Your task to perform on an android device: turn off location history Image 0: 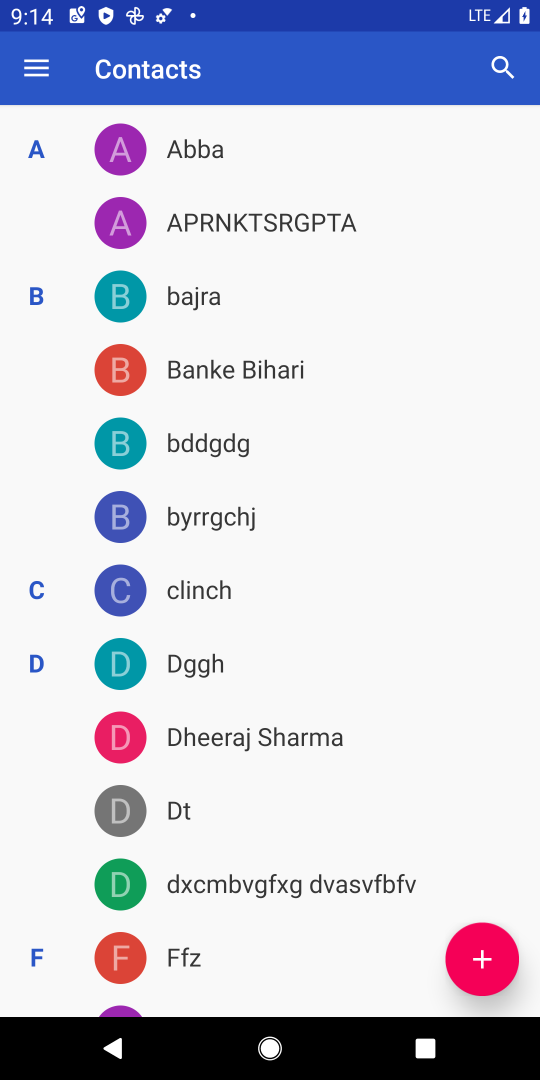
Step 0: press home button
Your task to perform on an android device: turn off location history Image 1: 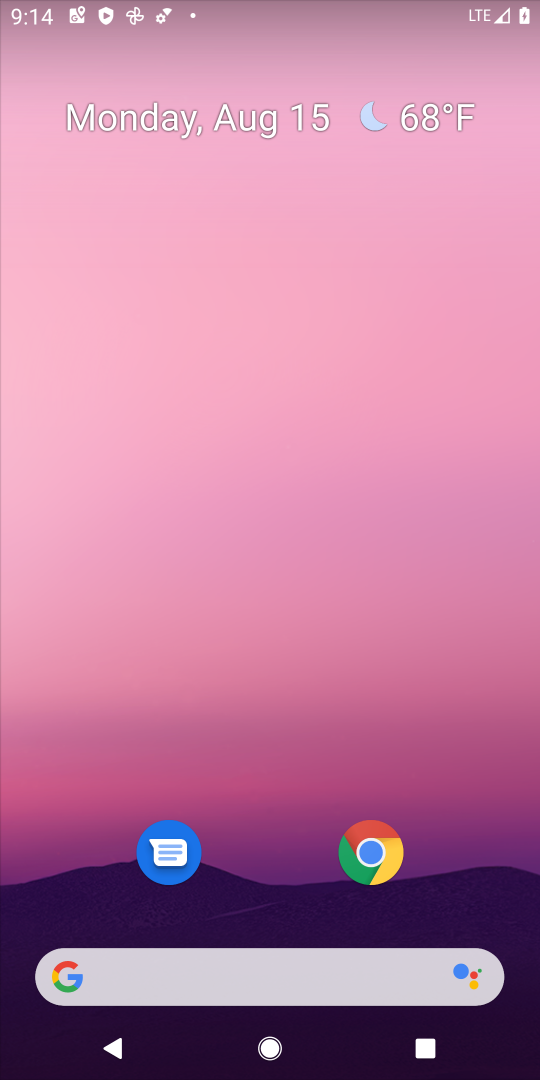
Step 1: drag from (215, 975) to (155, 98)
Your task to perform on an android device: turn off location history Image 2: 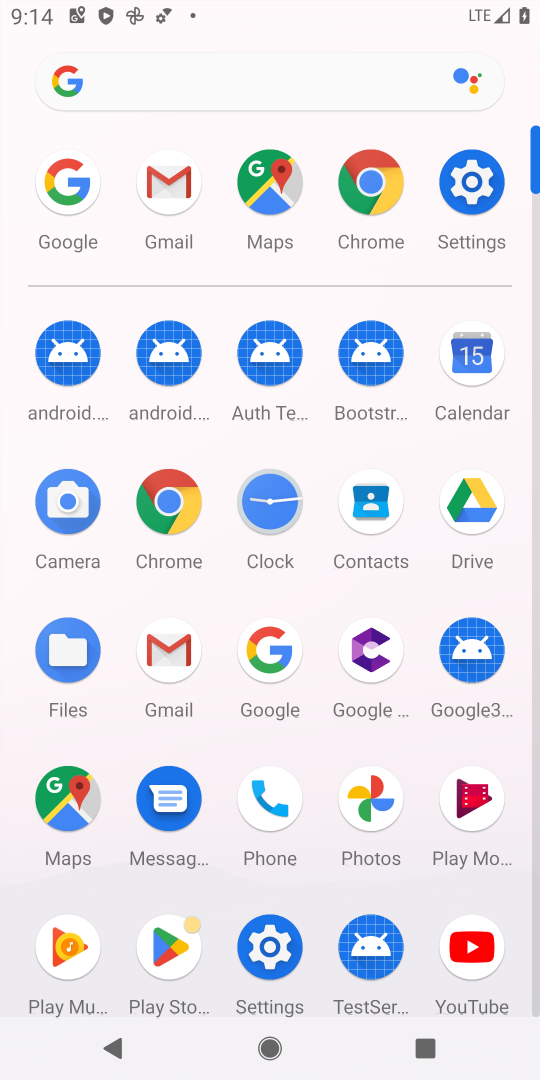
Step 2: click (470, 184)
Your task to perform on an android device: turn off location history Image 3: 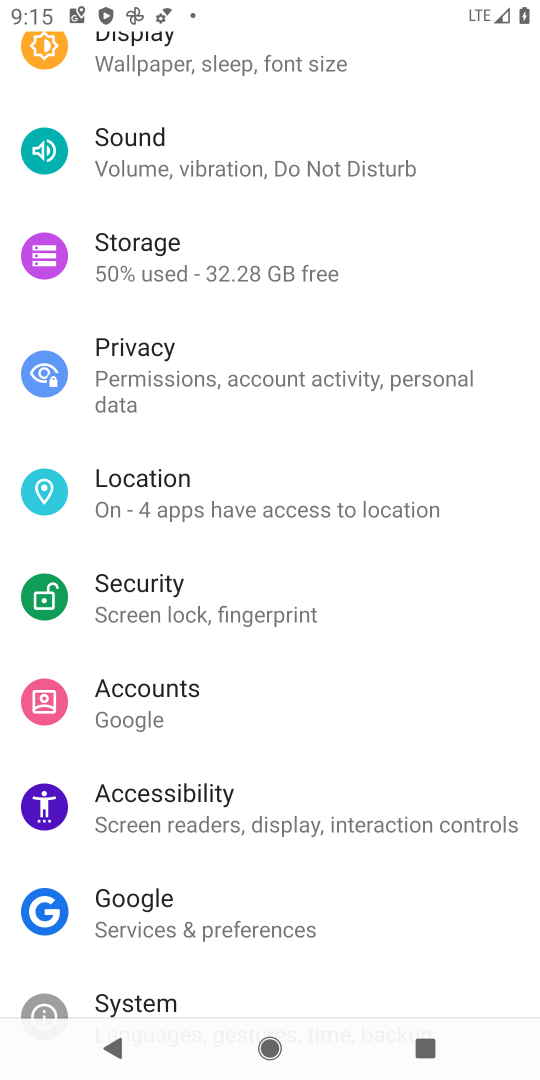
Step 3: click (217, 513)
Your task to perform on an android device: turn off location history Image 4: 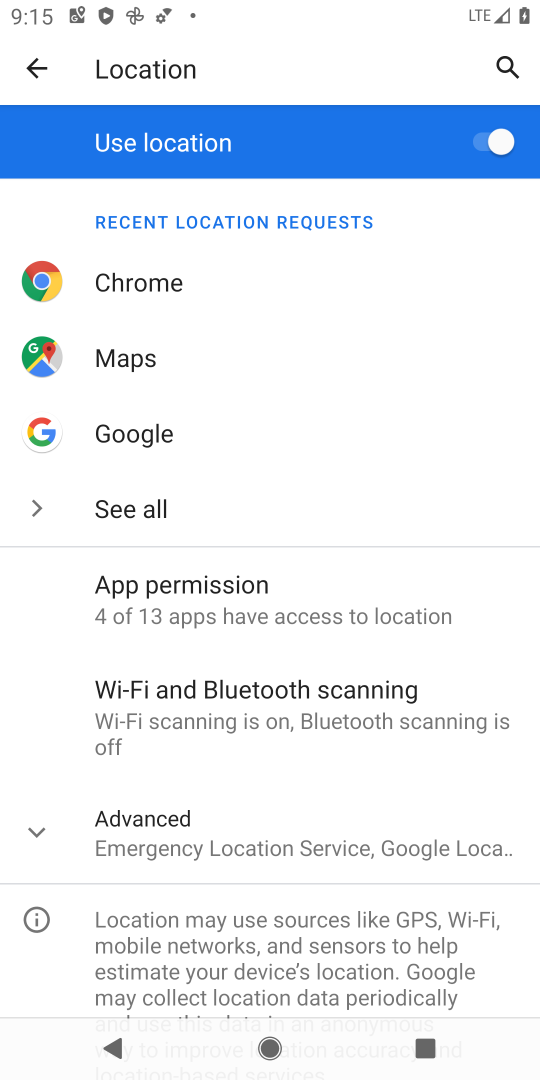
Step 4: click (197, 846)
Your task to perform on an android device: turn off location history Image 5: 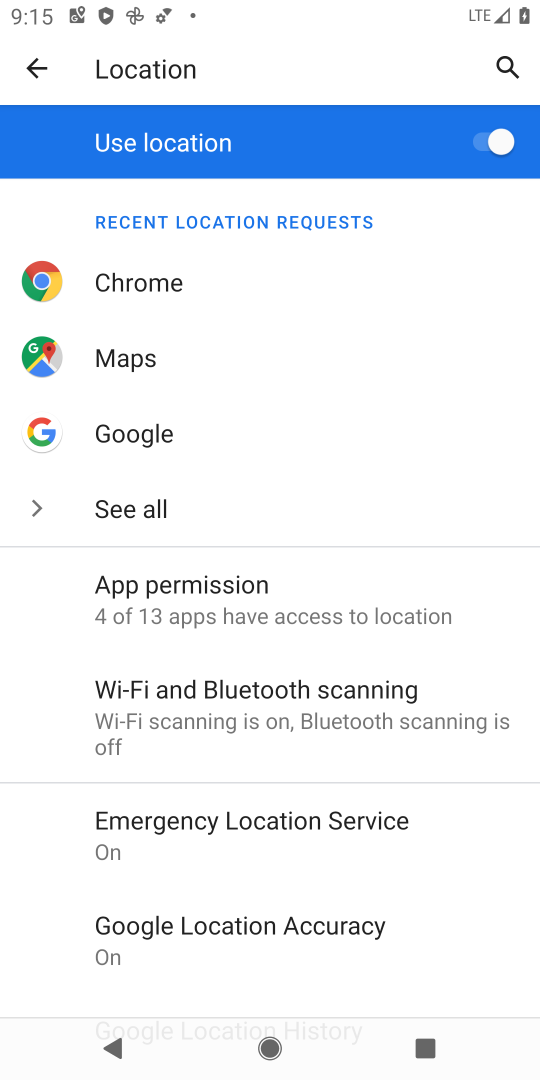
Step 5: drag from (225, 848) to (310, 686)
Your task to perform on an android device: turn off location history Image 6: 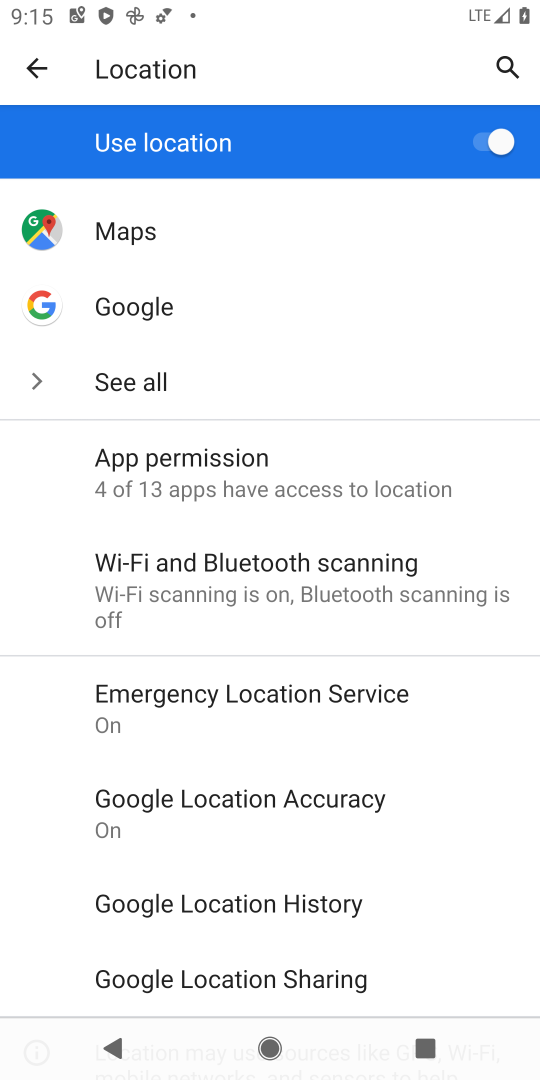
Step 6: drag from (236, 836) to (317, 686)
Your task to perform on an android device: turn off location history Image 7: 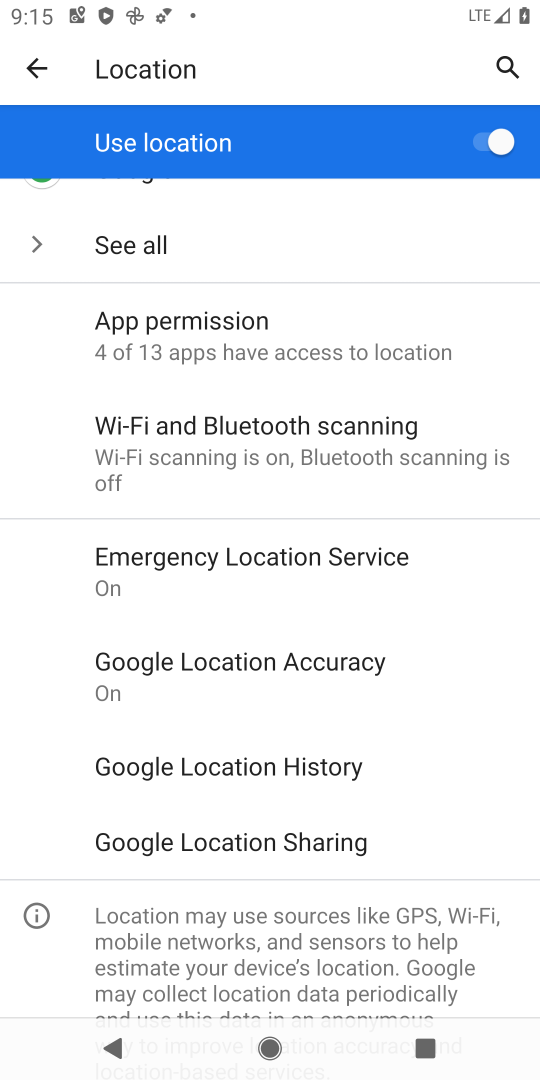
Step 7: click (314, 772)
Your task to perform on an android device: turn off location history Image 8: 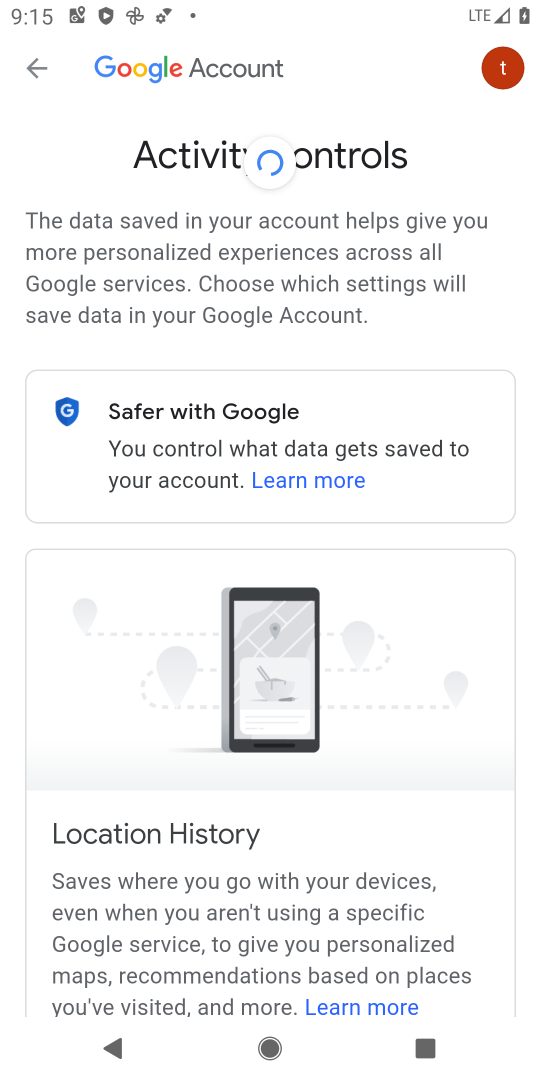
Step 8: task complete